Your task to perform on an android device: turn off translation in the chrome app Image 0: 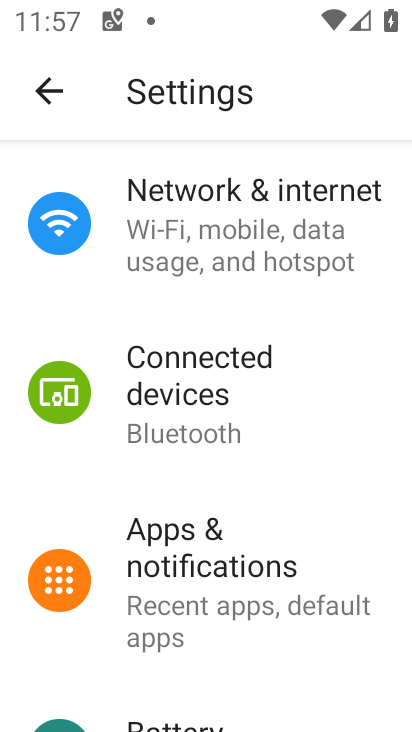
Step 0: press home button
Your task to perform on an android device: turn off translation in the chrome app Image 1: 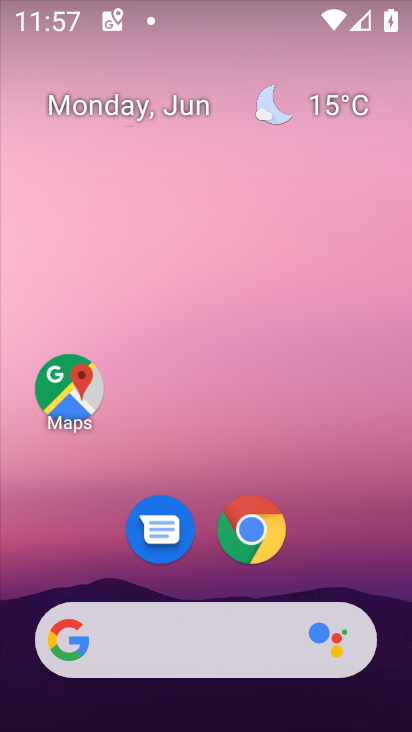
Step 1: click (268, 534)
Your task to perform on an android device: turn off translation in the chrome app Image 2: 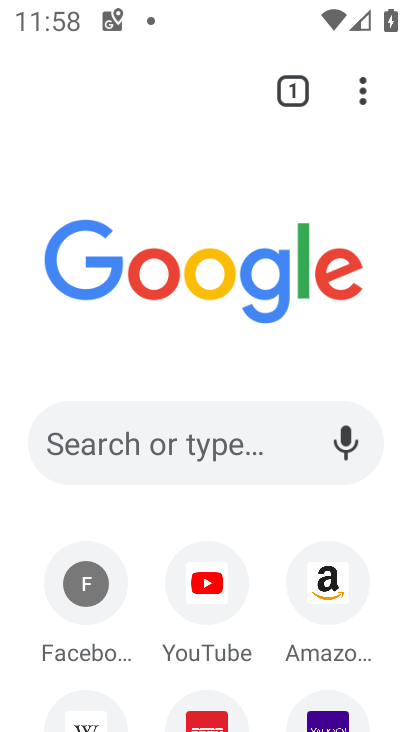
Step 2: drag from (362, 104) to (240, 562)
Your task to perform on an android device: turn off translation in the chrome app Image 3: 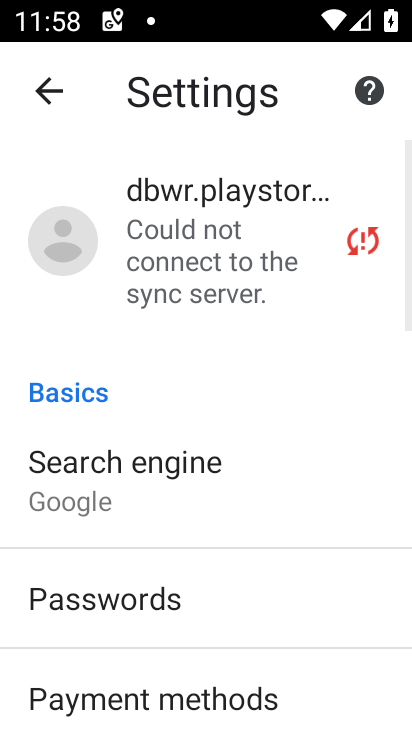
Step 3: drag from (198, 694) to (342, 145)
Your task to perform on an android device: turn off translation in the chrome app Image 4: 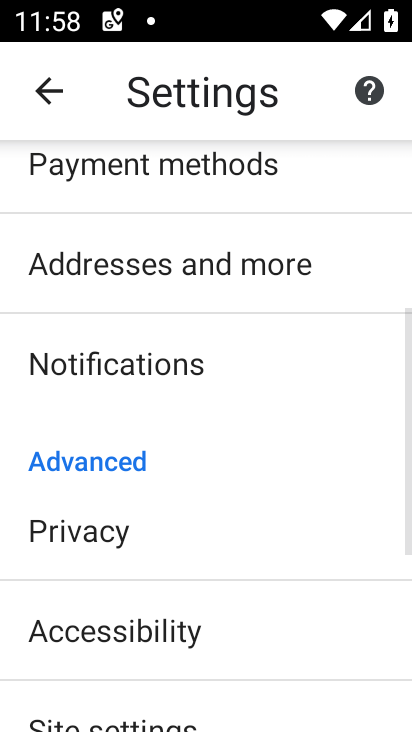
Step 4: drag from (205, 630) to (313, 236)
Your task to perform on an android device: turn off translation in the chrome app Image 5: 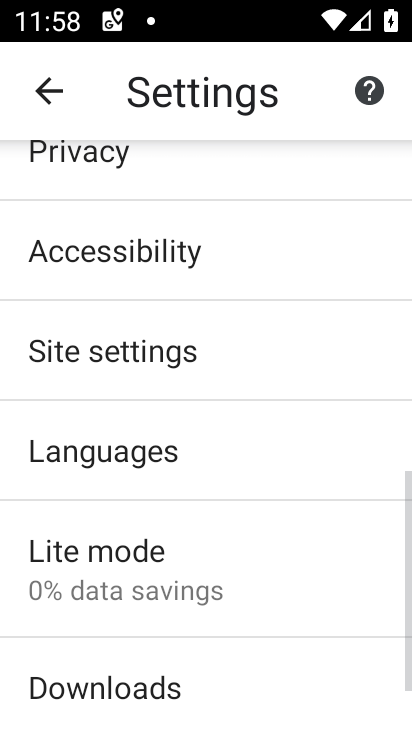
Step 5: click (212, 472)
Your task to perform on an android device: turn off translation in the chrome app Image 6: 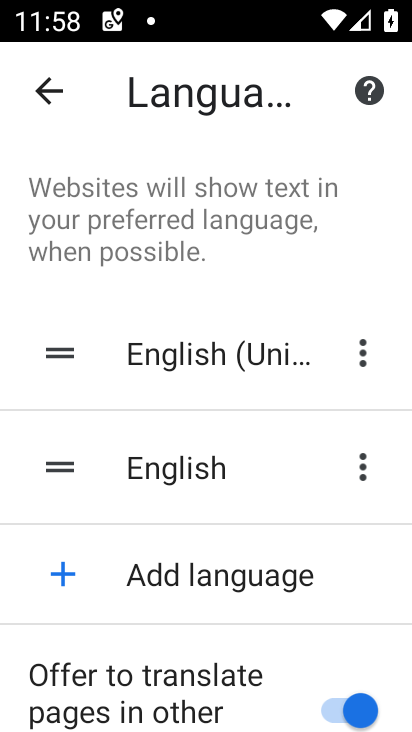
Step 6: click (399, 588)
Your task to perform on an android device: turn off translation in the chrome app Image 7: 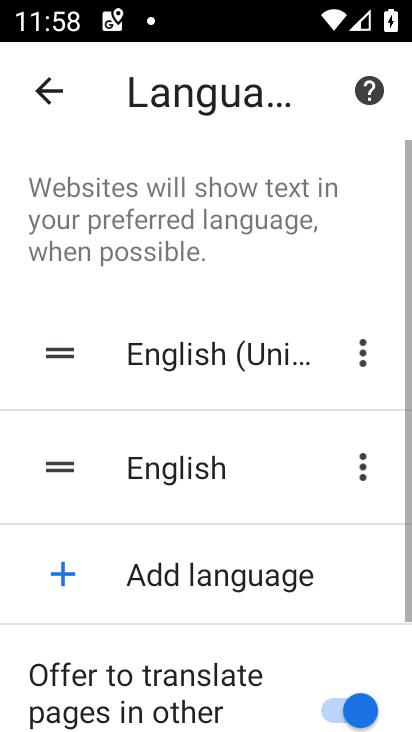
Step 7: click (318, 644)
Your task to perform on an android device: turn off translation in the chrome app Image 8: 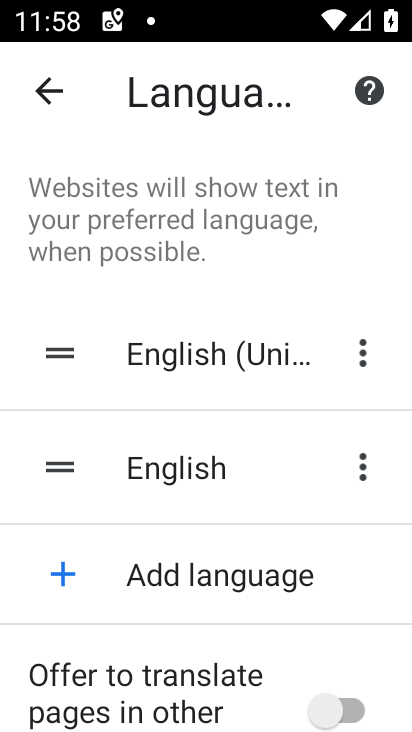
Step 8: task complete